Your task to perform on an android device: Show the shopping cart on amazon. Add "apple airpods" to the cart on amazon, then select checkout. Image 0: 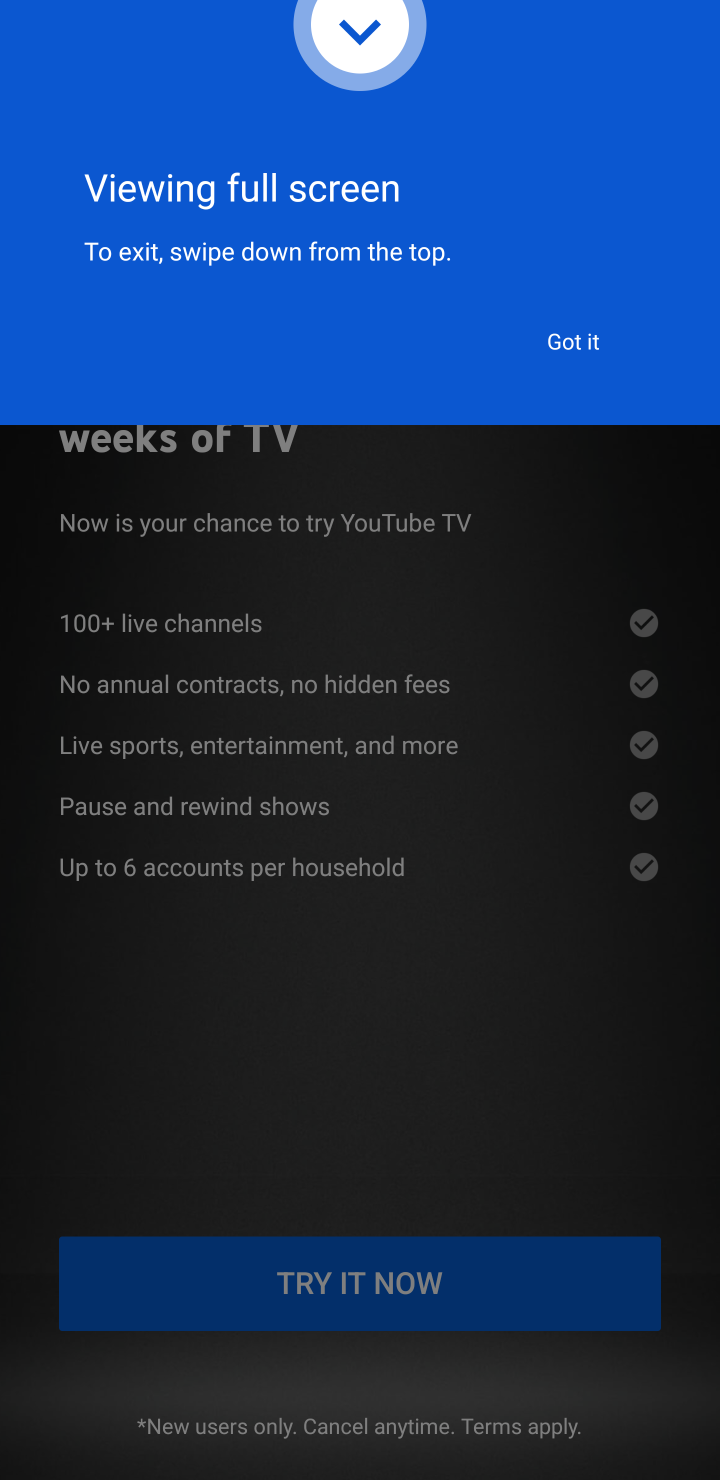
Step 0: press home button
Your task to perform on an android device: Show the shopping cart on amazon. Add "apple airpods" to the cart on amazon, then select checkout. Image 1: 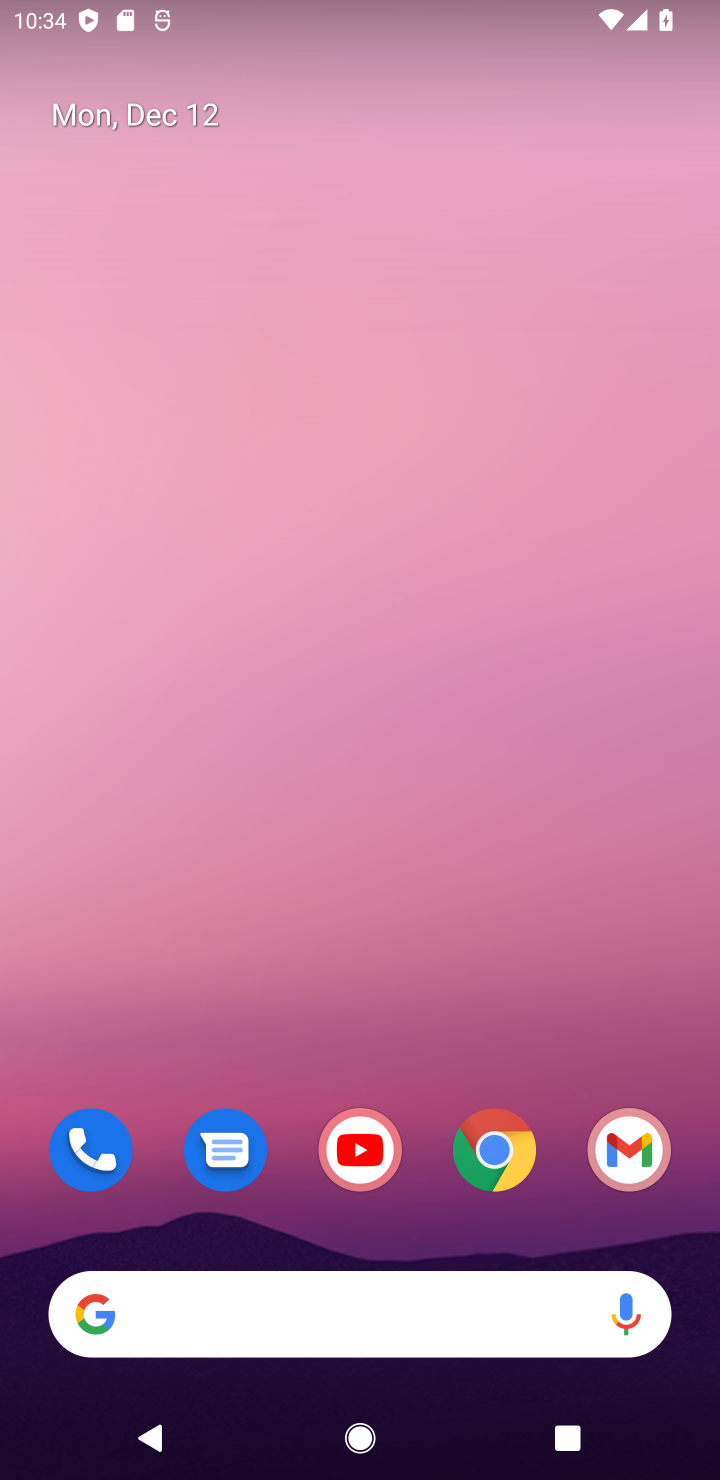
Step 1: click (506, 1160)
Your task to perform on an android device: Show the shopping cart on amazon. Add "apple airpods" to the cart on amazon, then select checkout. Image 2: 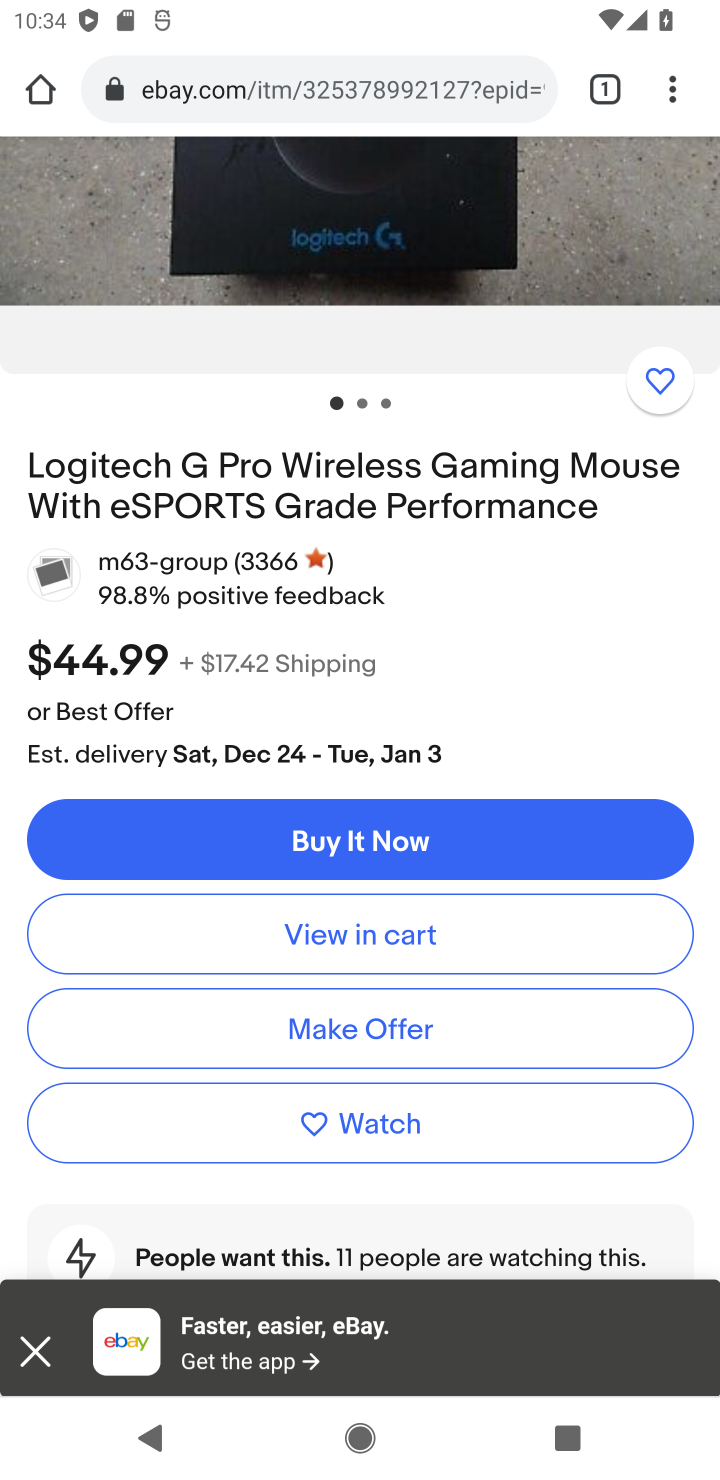
Step 2: click (252, 92)
Your task to perform on an android device: Show the shopping cart on amazon. Add "apple airpods" to the cart on amazon, then select checkout. Image 3: 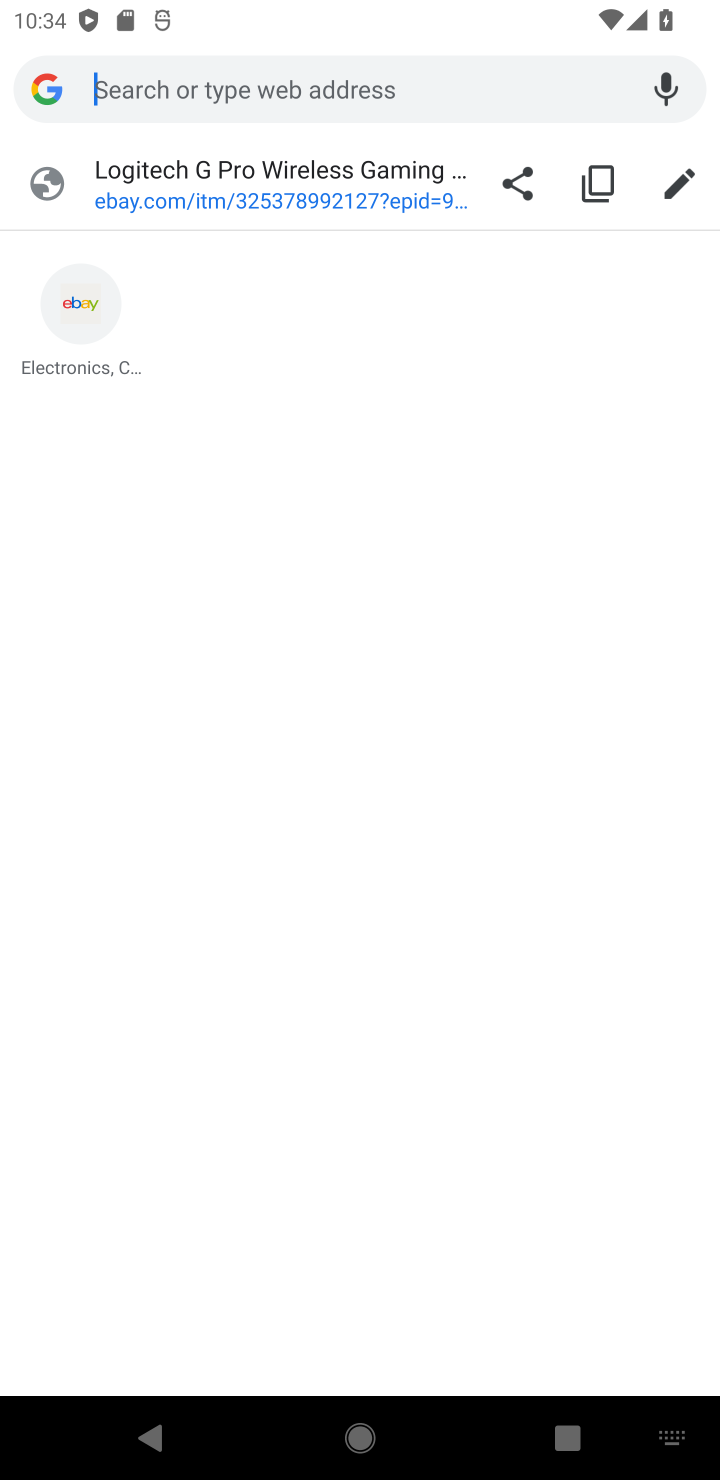
Step 3: type "amazon.com"
Your task to perform on an android device: Show the shopping cart on amazon. Add "apple airpods" to the cart on amazon, then select checkout. Image 4: 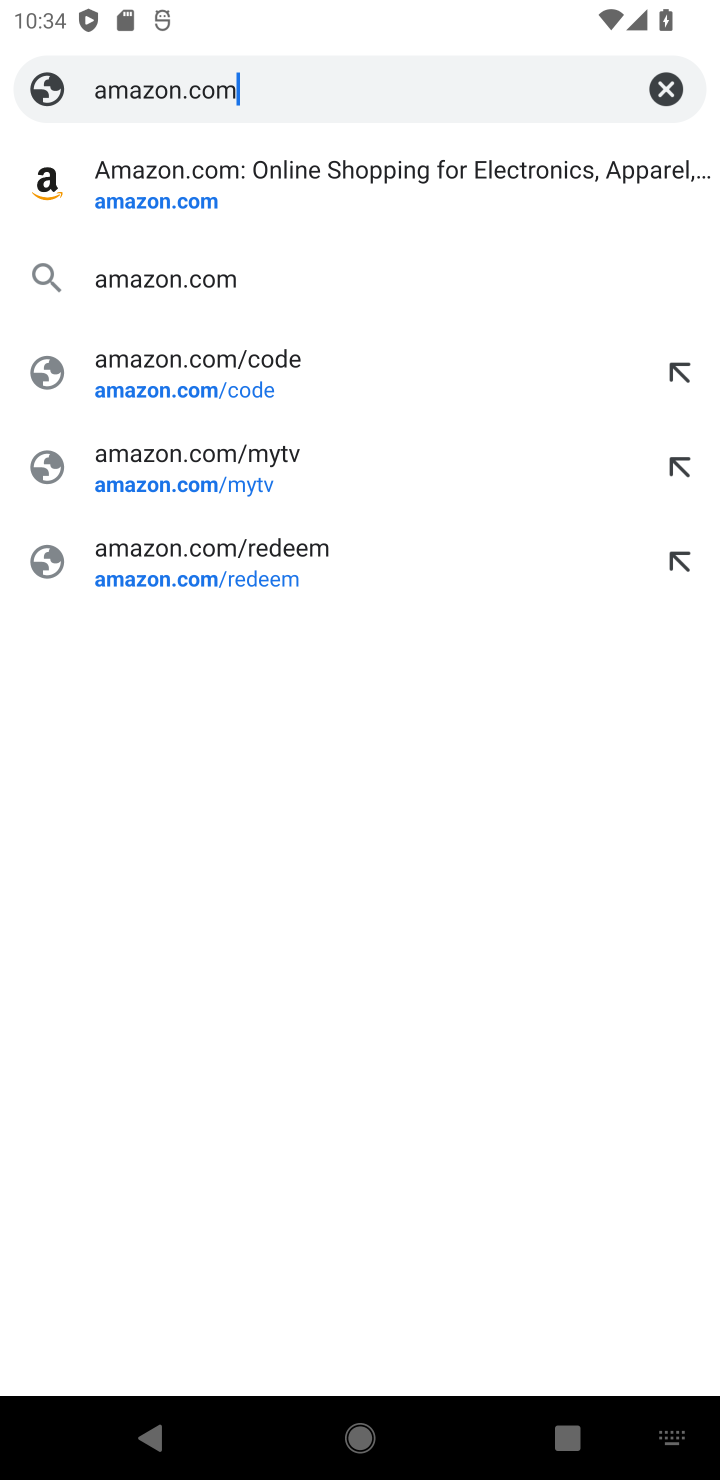
Step 4: click (152, 205)
Your task to perform on an android device: Show the shopping cart on amazon. Add "apple airpods" to the cart on amazon, then select checkout. Image 5: 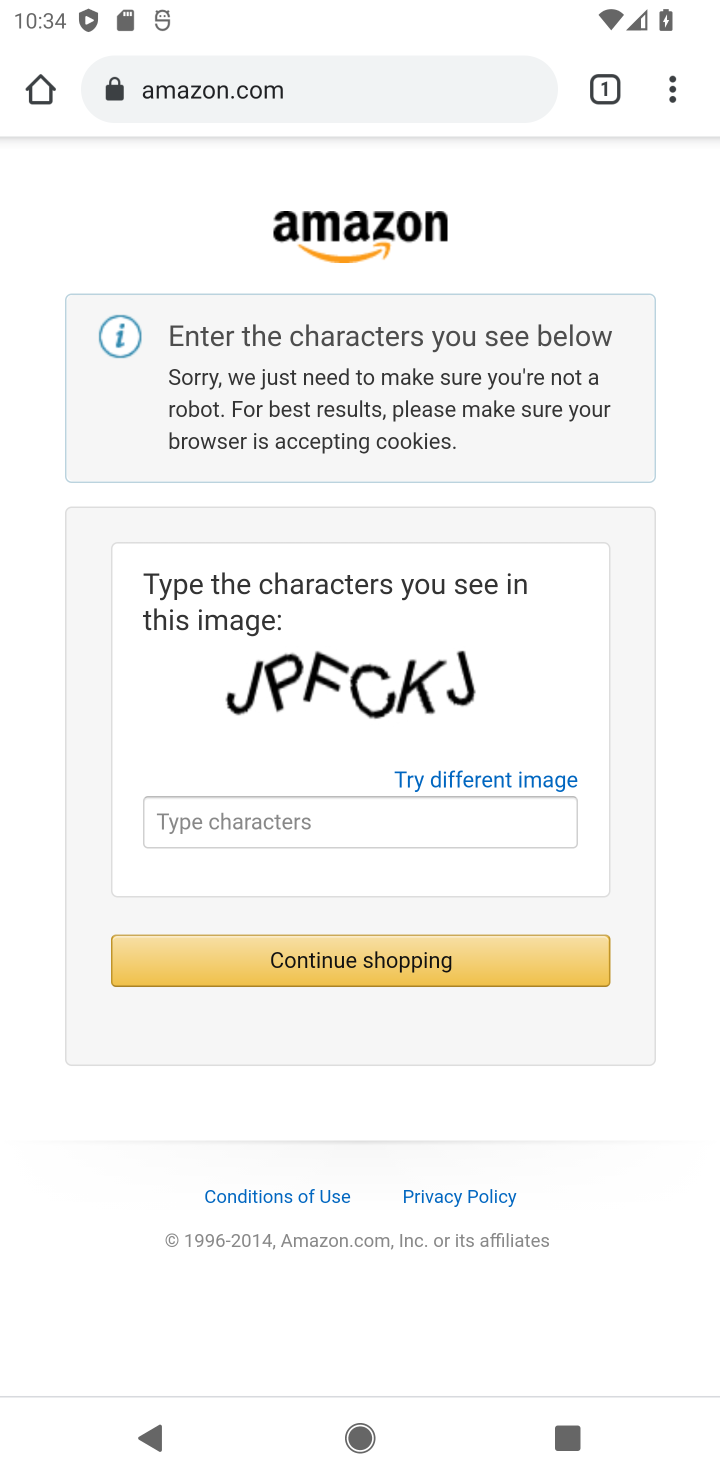
Step 5: click (313, 823)
Your task to perform on an android device: Show the shopping cart on amazon. Add "apple airpods" to the cart on amazon, then select checkout. Image 6: 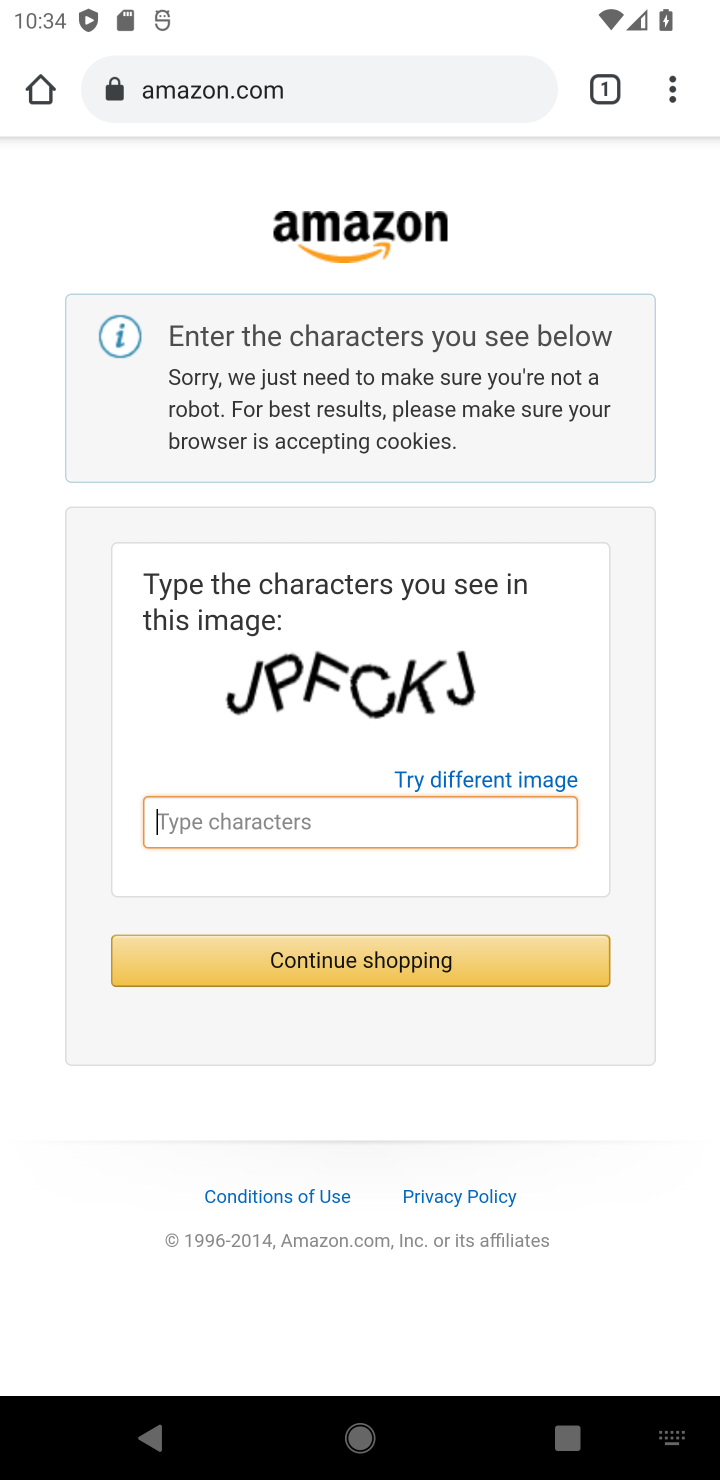
Step 6: type "JPFCKJ"
Your task to perform on an android device: Show the shopping cart on amazon. Add "apple airpods" to the cart on amazon, then select checkout. Image 7: 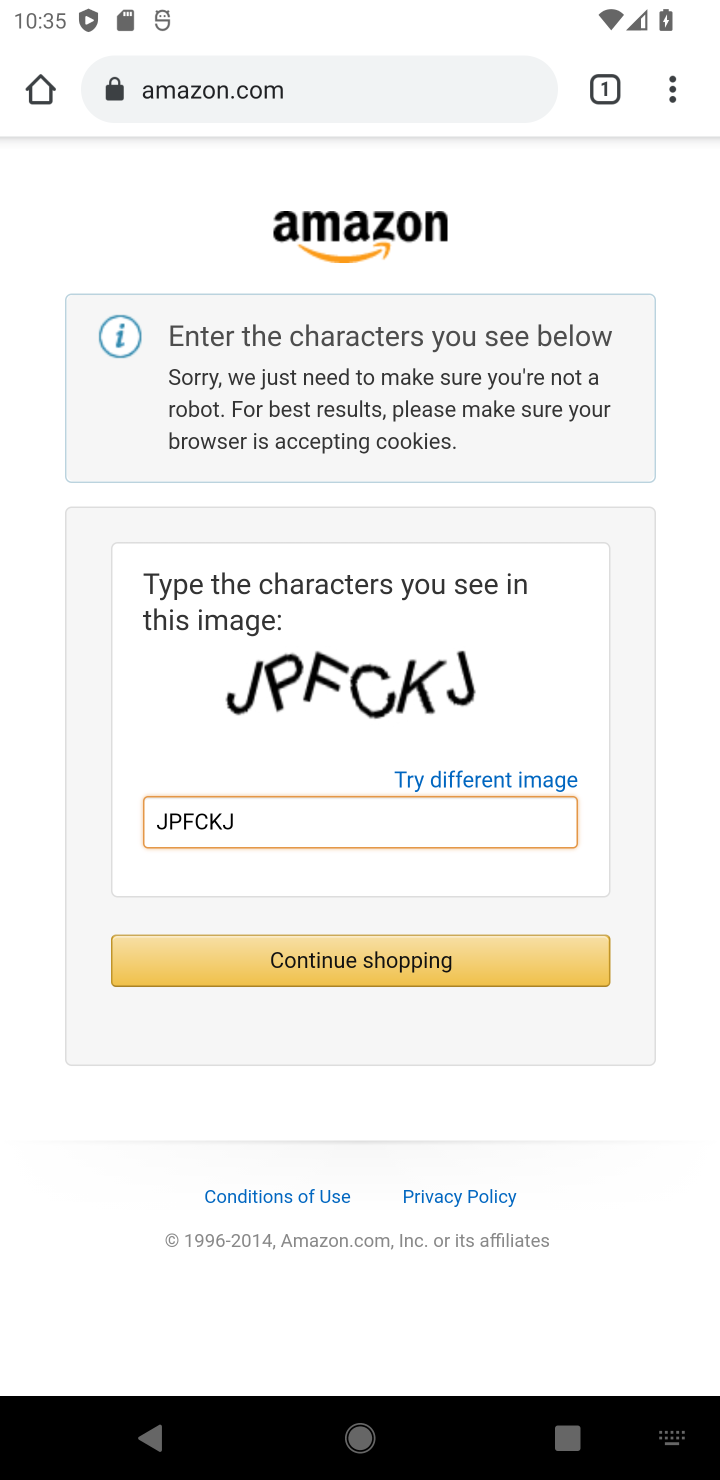
Step 7: click (467, 954)
Your task to perform on an android device: Show the shopping cart on amazon. Add "apple airpods" to the cart on amazon, then select checkout. Image 8: 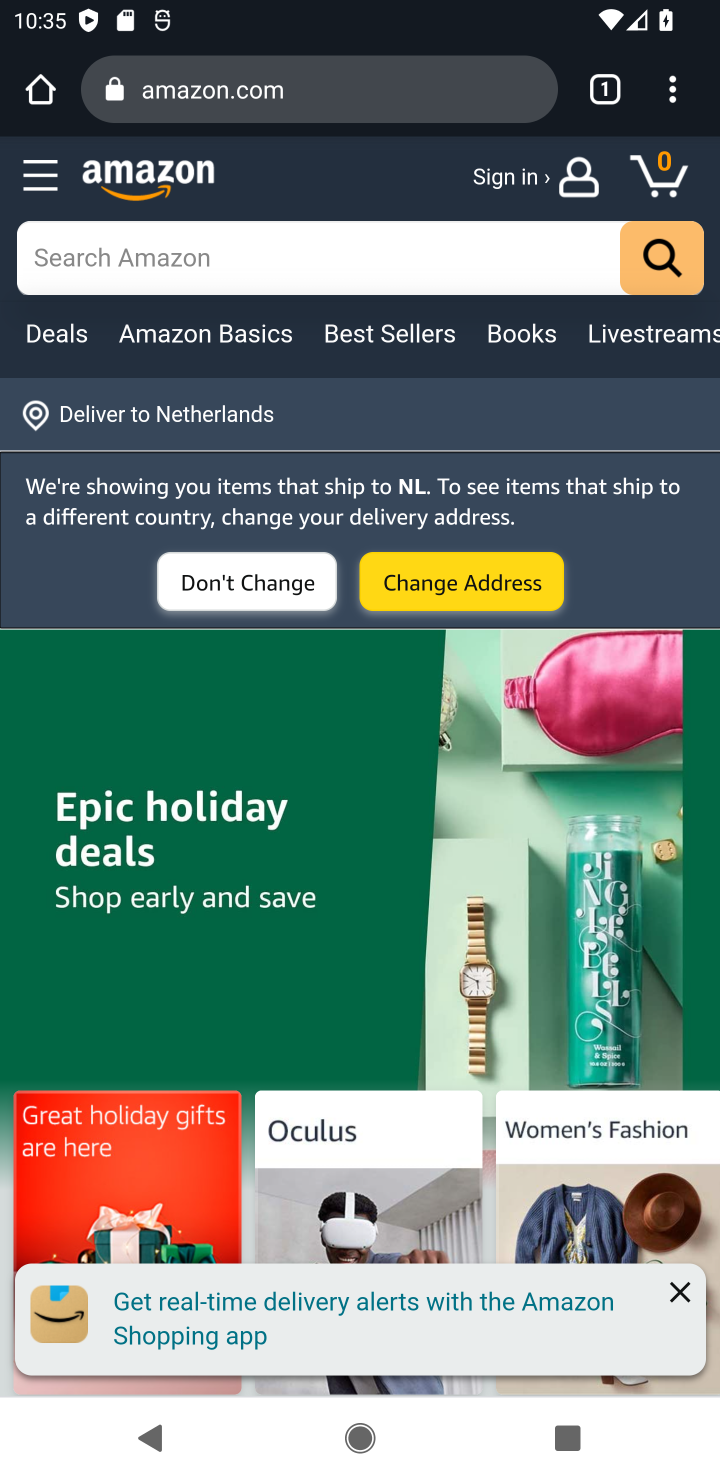
Step 8: click (650, 171)
Your task to perform on an android device: Show the shopping cart on amazon. Add "apple airpods" to the cart on amazon, then select checkout. Image 9: 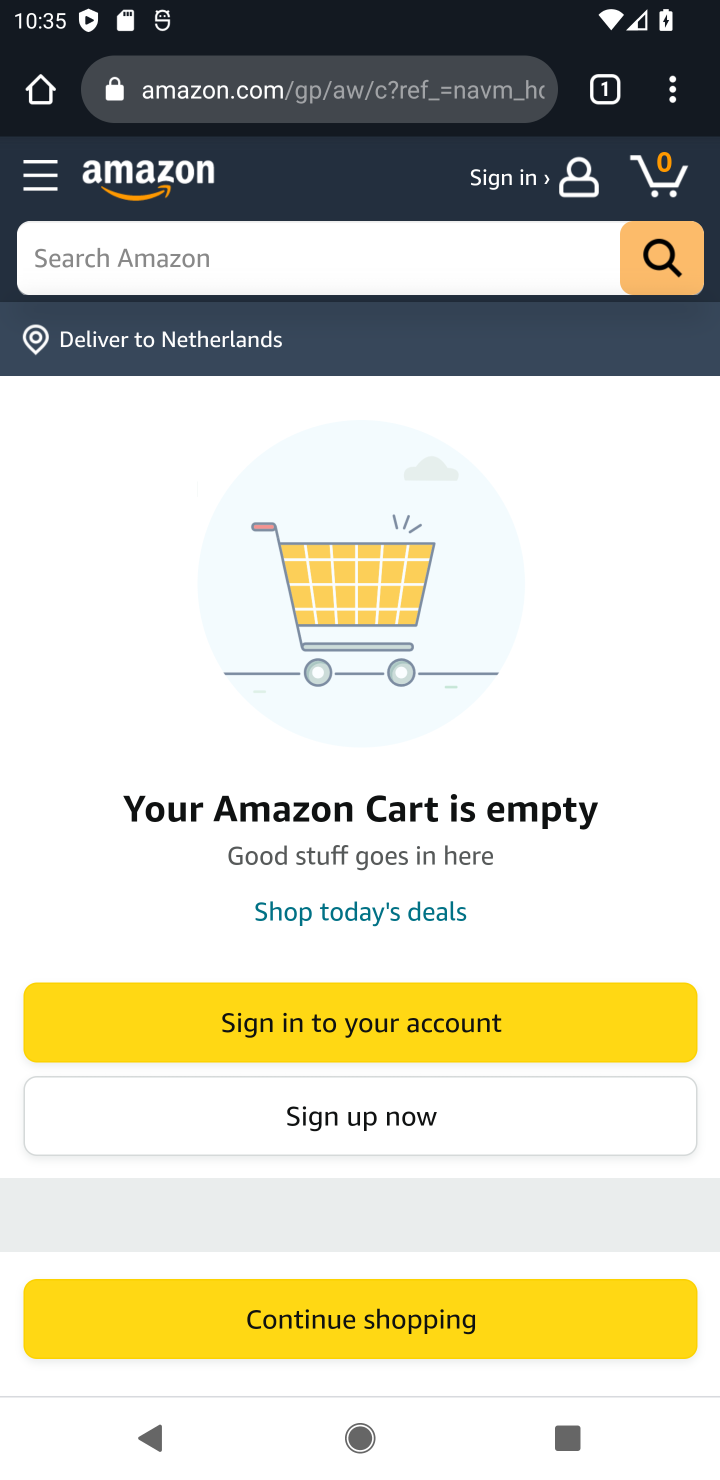
Step 9: click (131, 261)
Your task to perform on an android device: Show the shopping cart on amazon. Add "apple airpods" to the cart on amazon, then select checkout. Image 10: 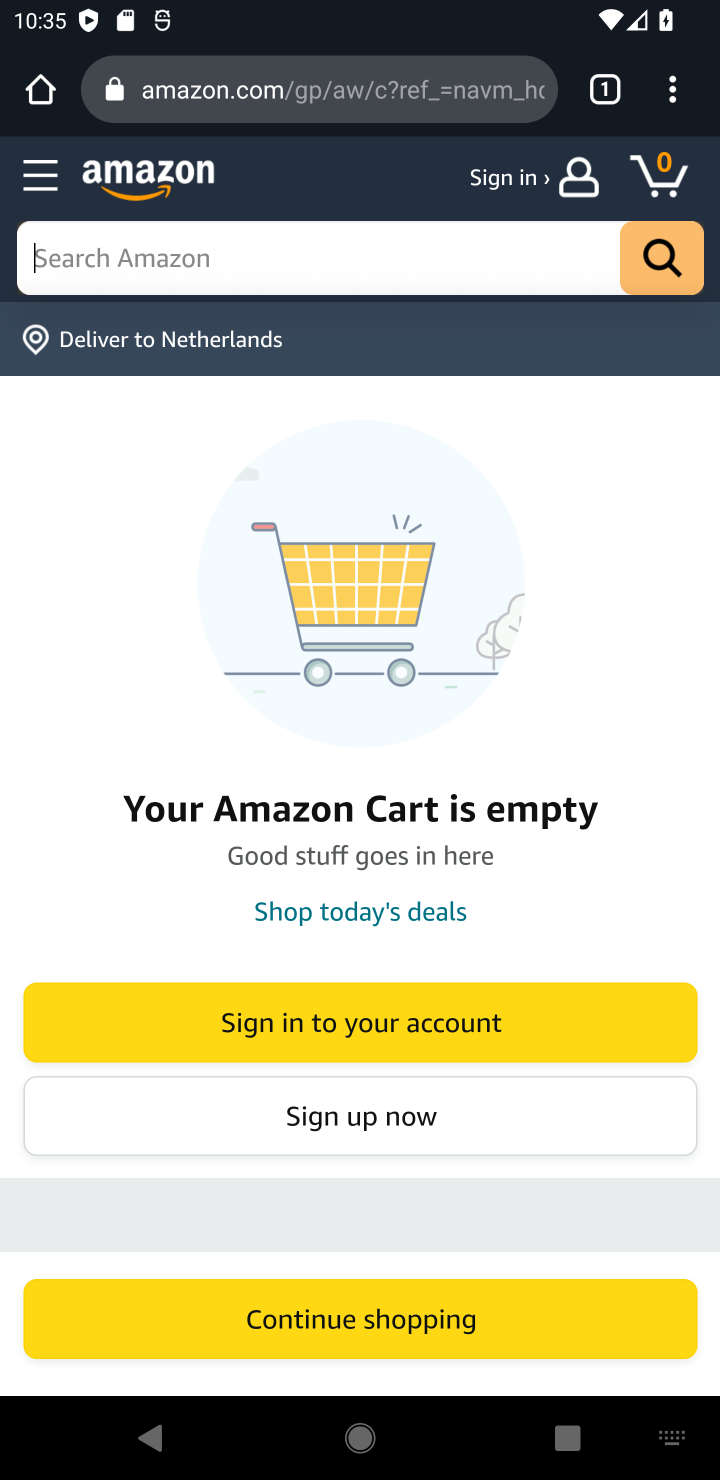
Step 10: type "apple airpods"
Your task to perform on an android device: Show the shopping cart on amazon. Add "apple airpods" to the cart on amazon, then select checkout. Image 11: 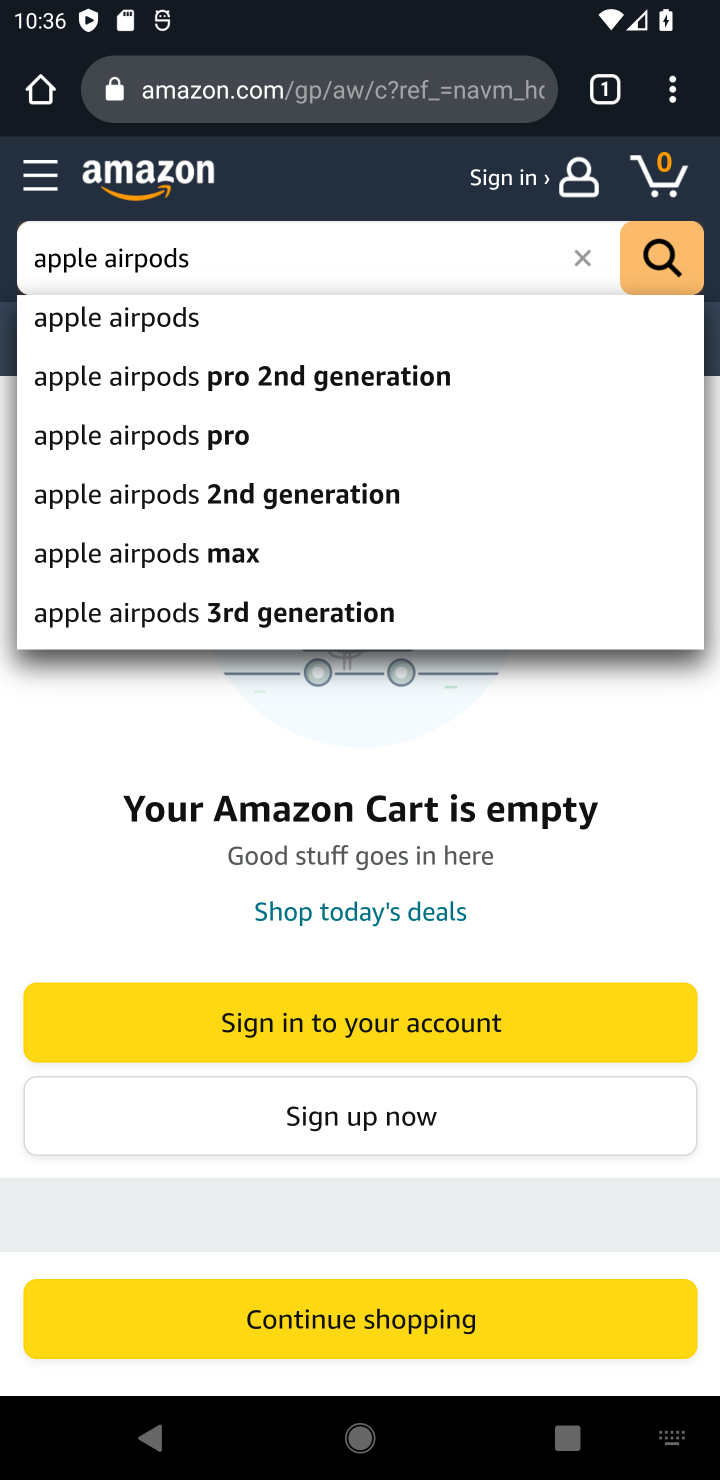
Step 11: click (126, 326)
Your task to perform on an android device: Show the shopping cart on amazon. Add "apple airpods" to the cart on amazon, then select checkout. Image 12: 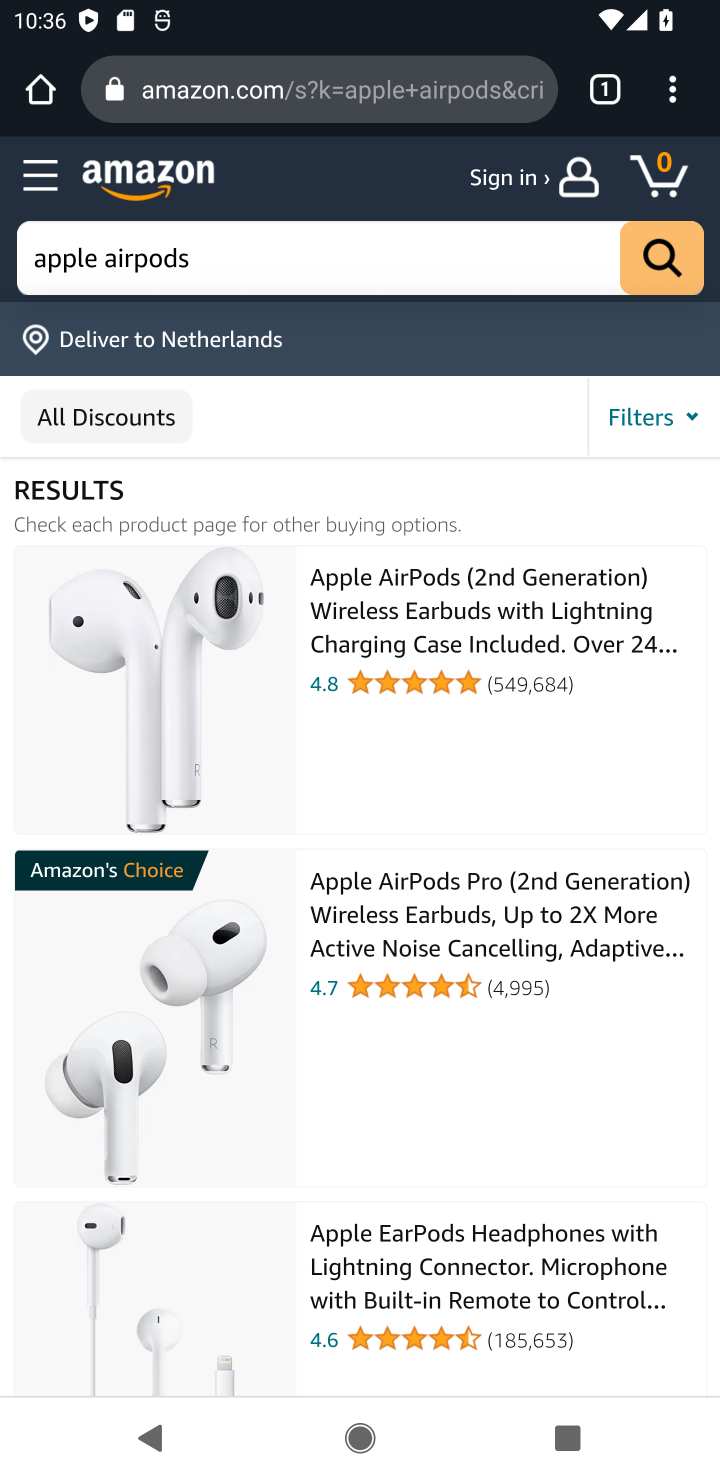
Step 12: drag from (447, 1081) to (431, 545)
Your task to perform on an android device: Show the shopping cart on amazon. Add "apple airpods" to the cart on amazon, then select checkout. Image 13: 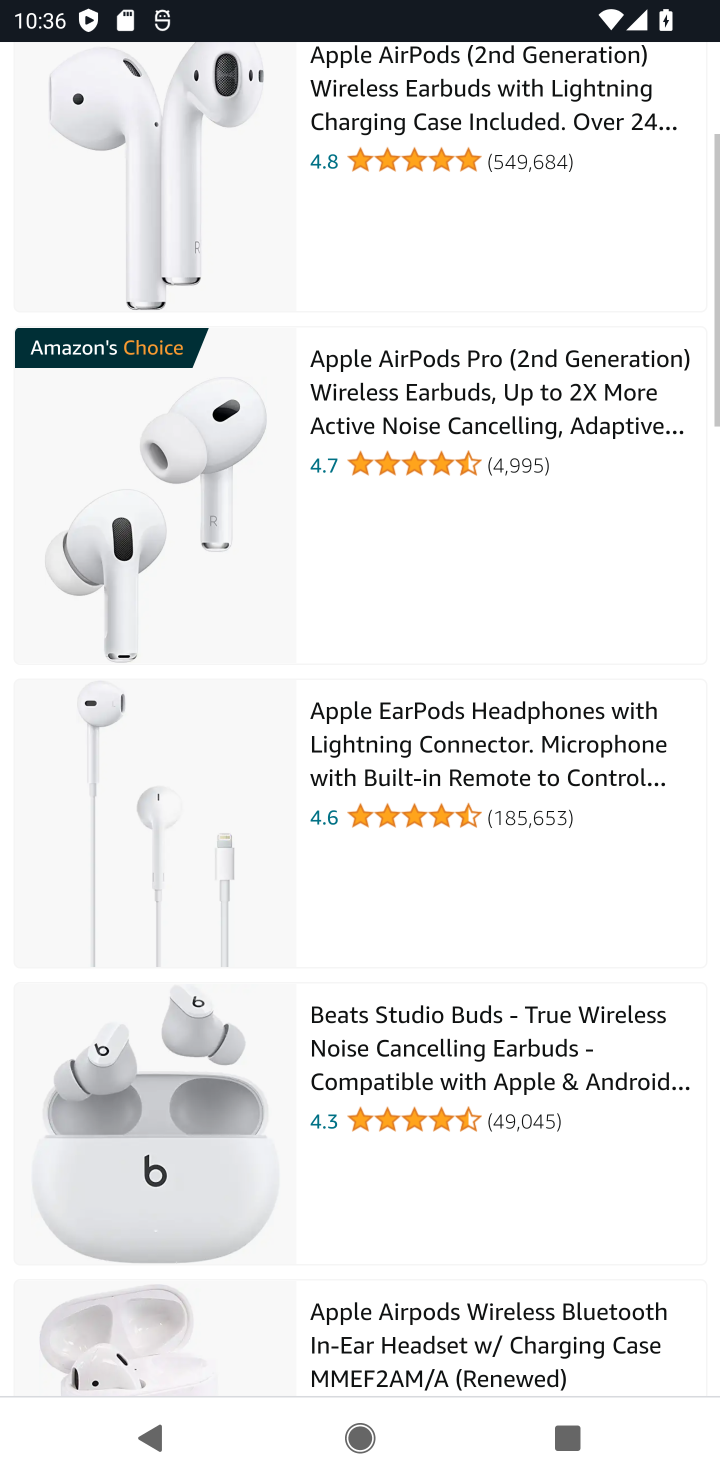
Step 13: drag from (401, 1151) to (416, 493)
Your task to perform on an android device: Show the shopping cart on amazon. Add "apple airpods" to the cart on amazon, then select checkout. Image 14: 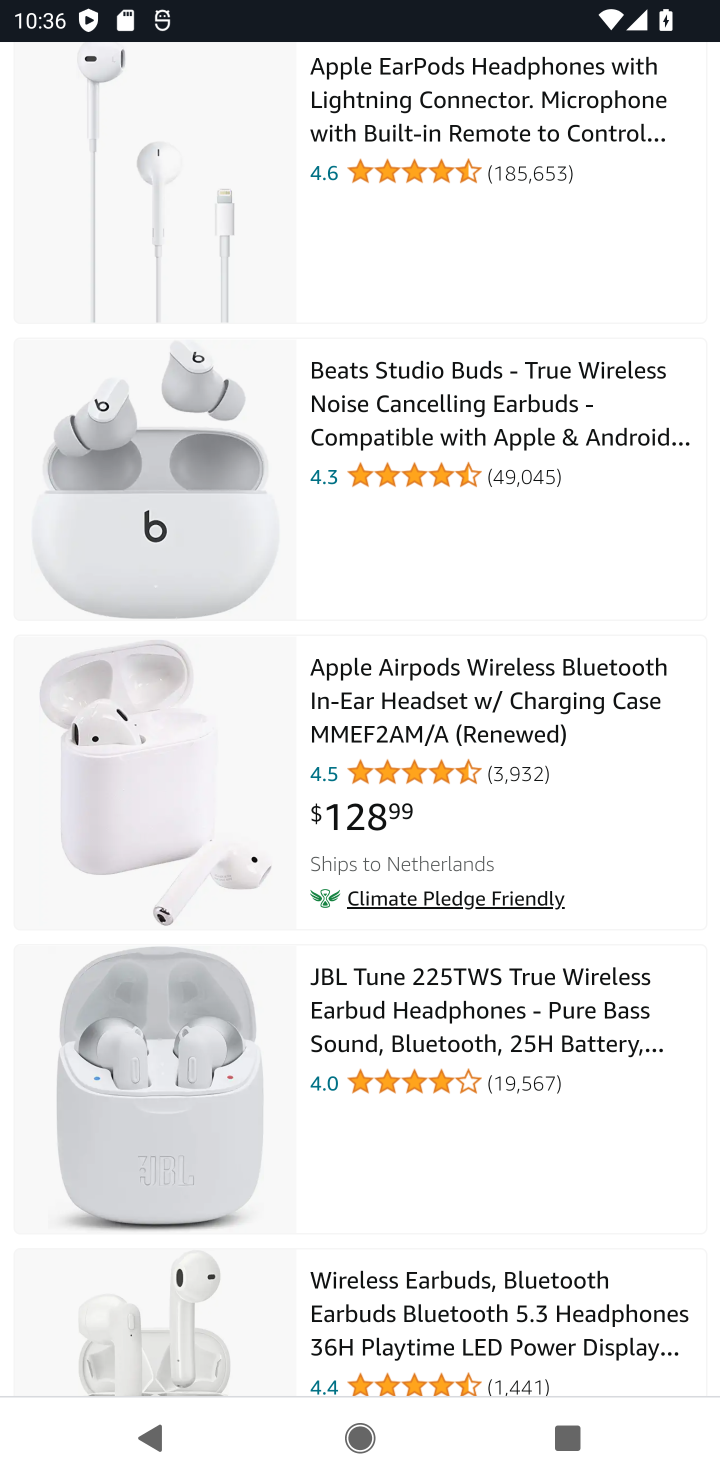
Step 14: click (399, 716)
Your task to perform on an android device: Show the shopping cart on amazon. Add "apple airpods" to the cart on amazon, then select checkout. Image 15: 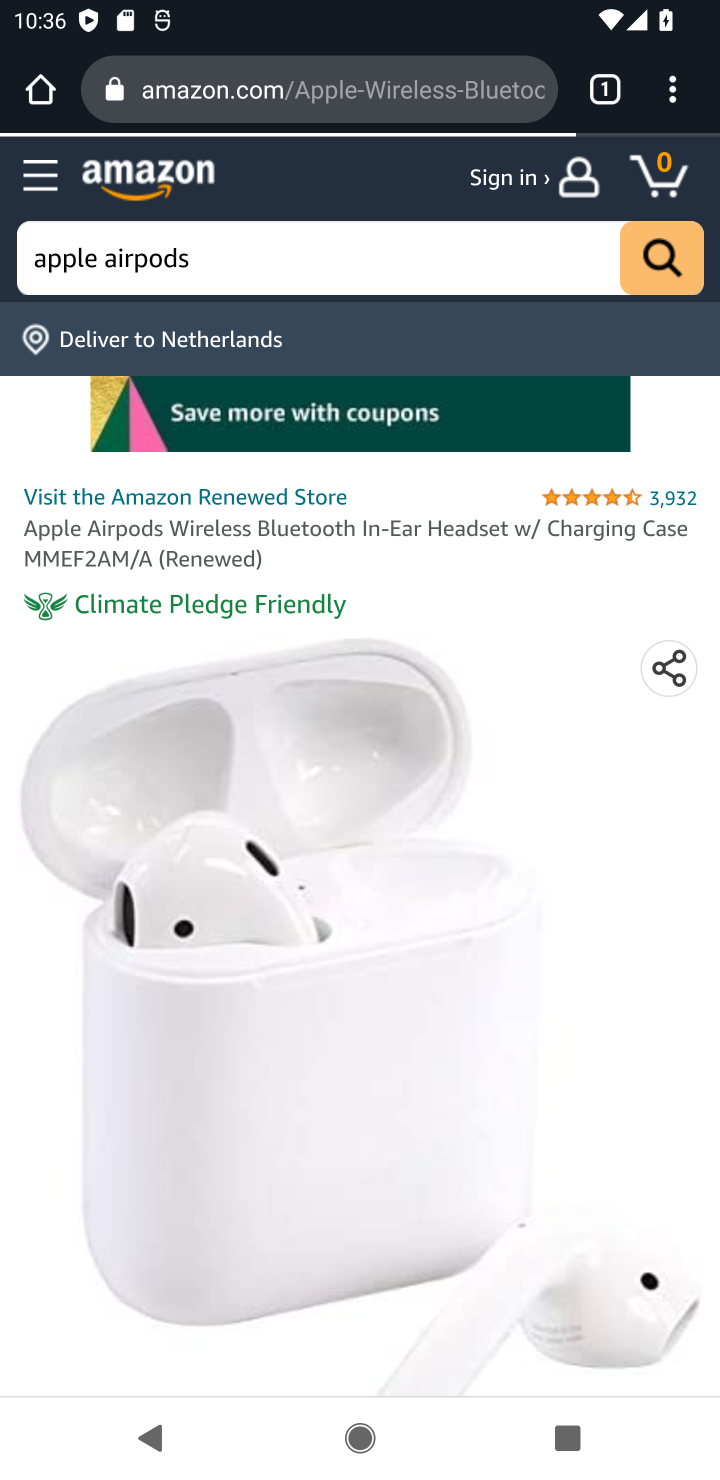
Step 15: drag from (327, 1039) to (325, 298)
Your task to perform on an android device: Show the shopping cart on amazon. Add "apple airpods" to the cart on amazon, then select checkout. Image 16: 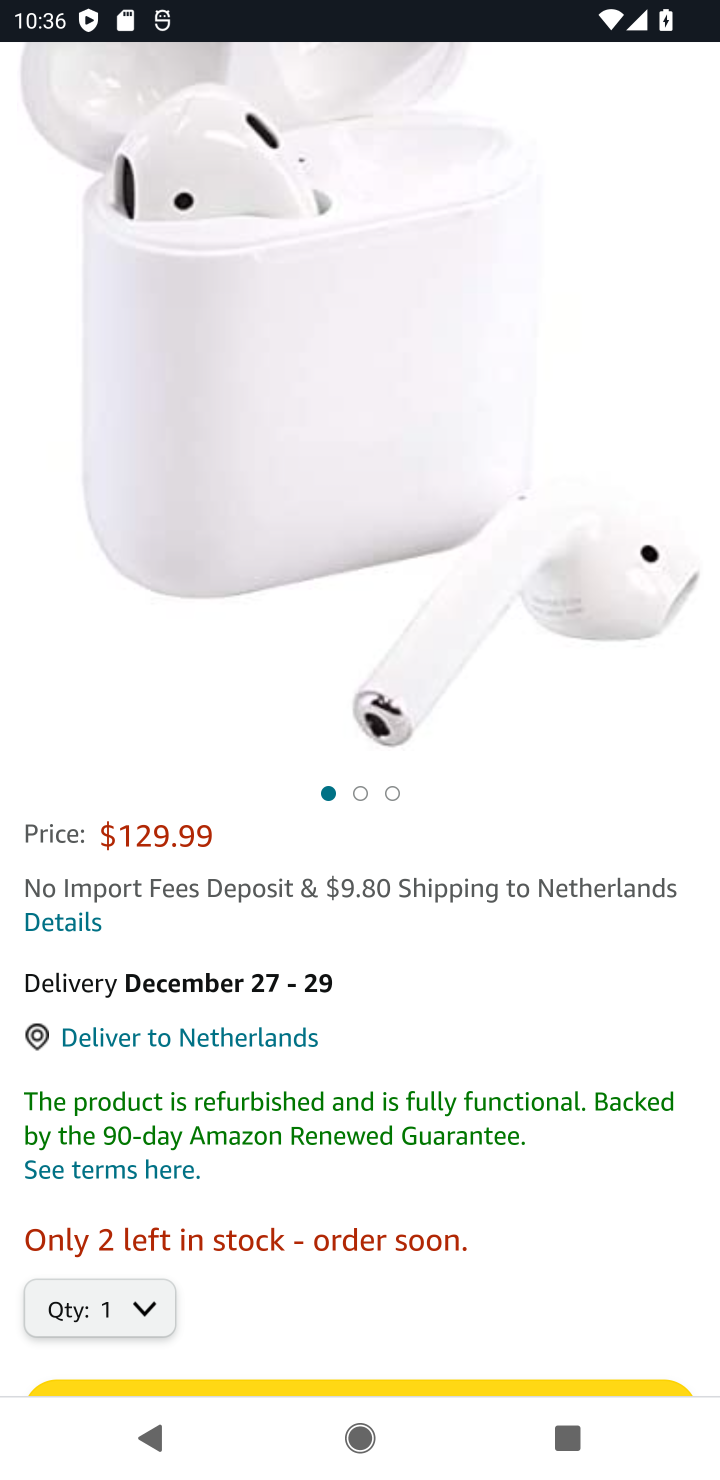
Step 16: drag from (318, 969) to (309, 431)
Your task to perform on an android device: Show the shopping cart on amazon. Add "apple airpods" to the cart on amazon, then select checkout. Image 17: 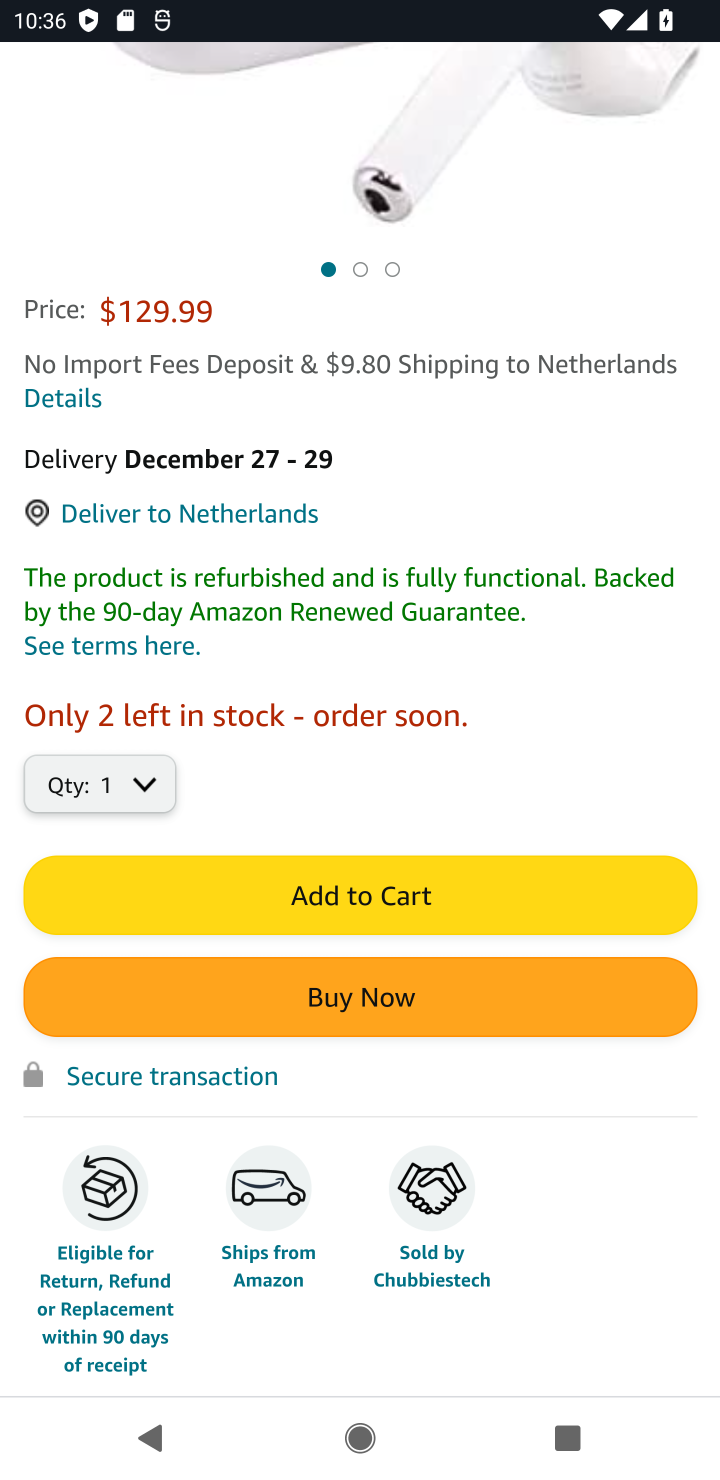
Step 17: click (313, 882)
Your task to perform on an android device: Show the shopping cart on amazon. Add "apple airpods" to the cart on amazon, then select checkout. Image 18: 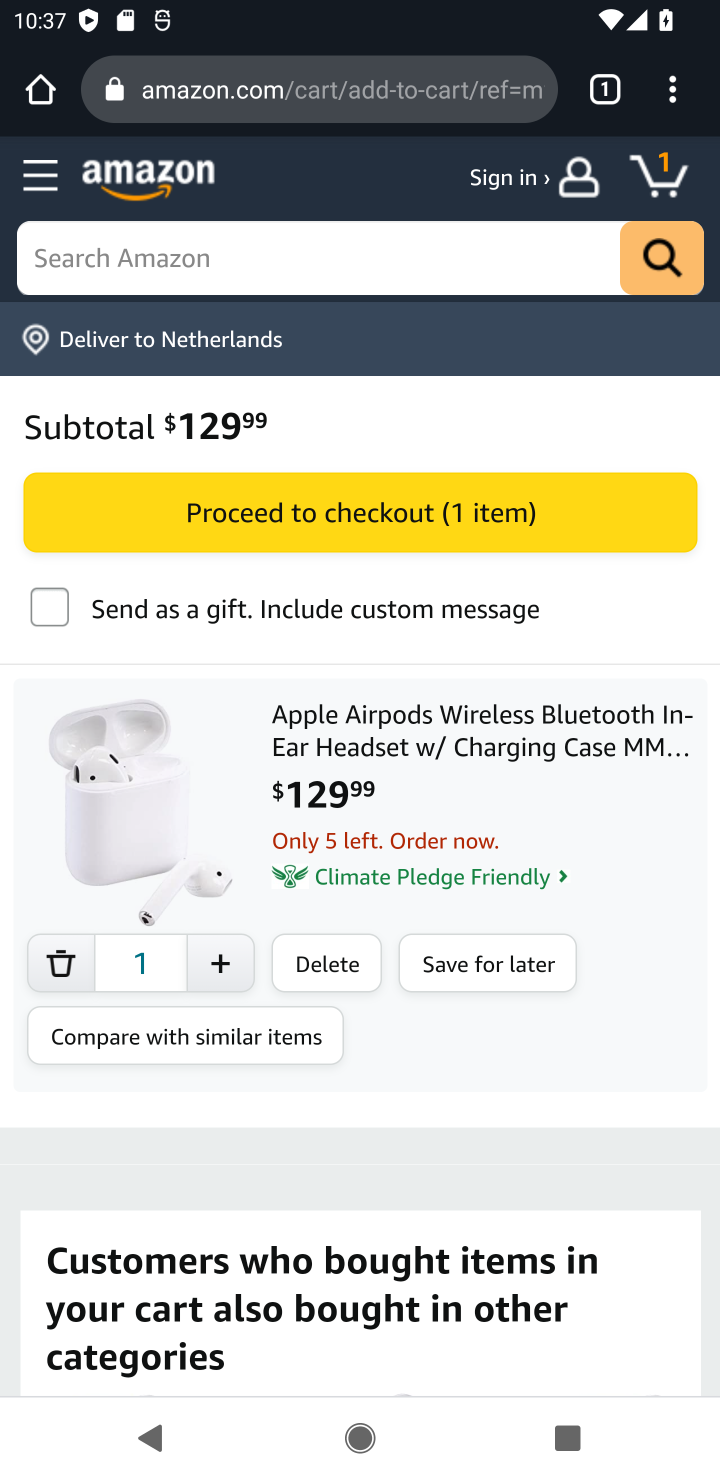
Step 18: click (321, 505)
Your task to perform on an android device: Show the shopping cart on amazon. Add "apple airpods" to the cart on amazon, then select checkout. Image 19: 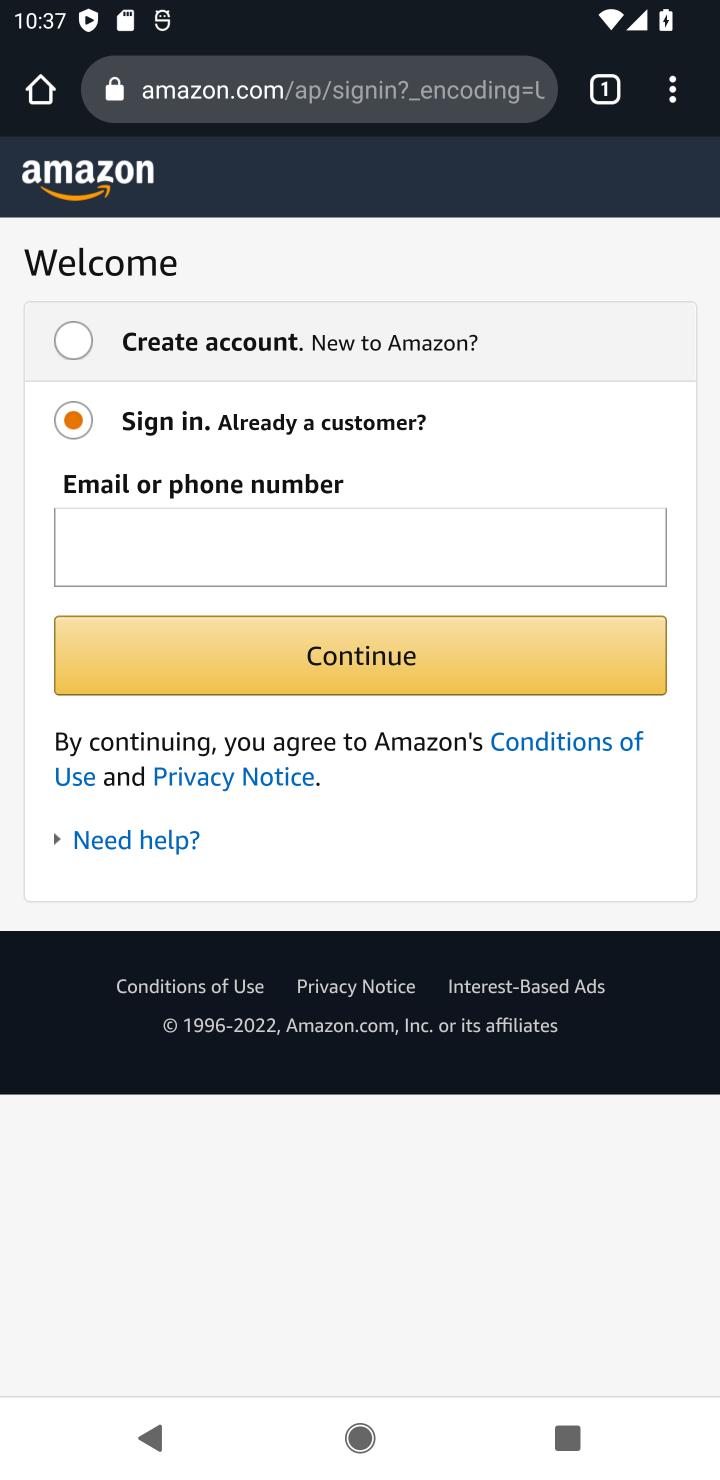
Step 19: task complete